Your task to perform on an android device: change notification settings in the gmail app Image 0: 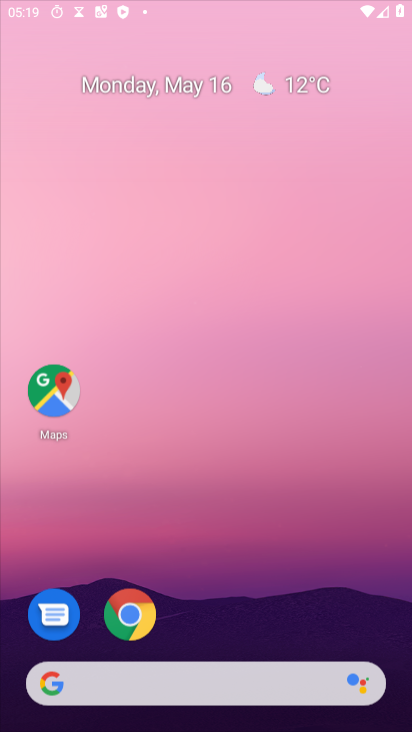
Step 0: click (125, 105)
Your task to perform on an android device: change notification settings in the gmail app Image 1: 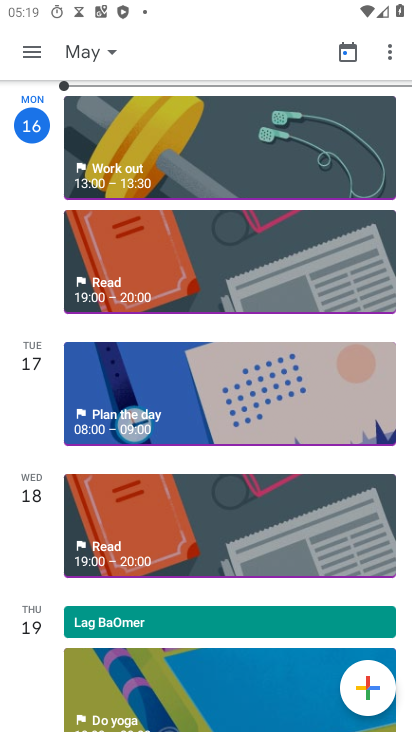
Step 1: press back button
Your task to perform on an android device: change notification settings in the gmail app Image 2: 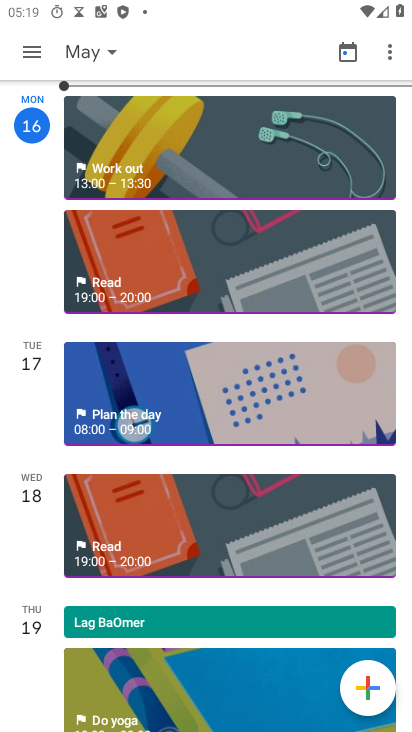
Step 2: press back button
Your task to perform on an android device: change notification settings in the gmail app Image 3: 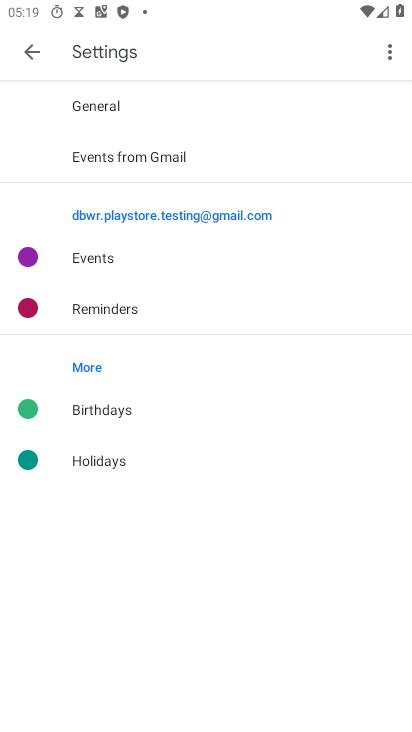
Step 3: press back button
Your task to perform on an android device: change notification settings in the gmail app Image 4: 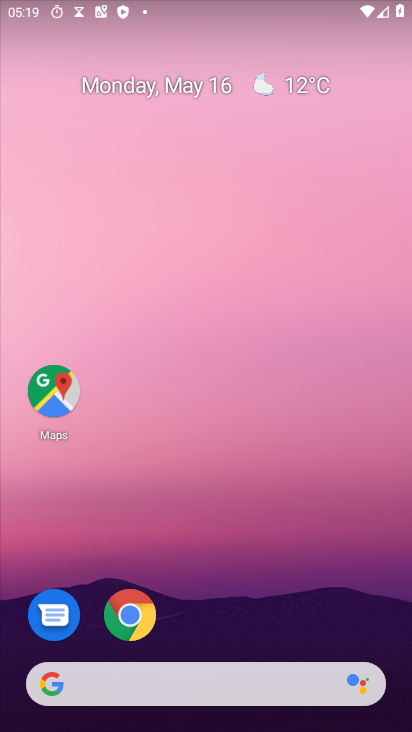
Step 4: press home button
Your task to perform on an android device: change notification settings in the gmail app Image 5: 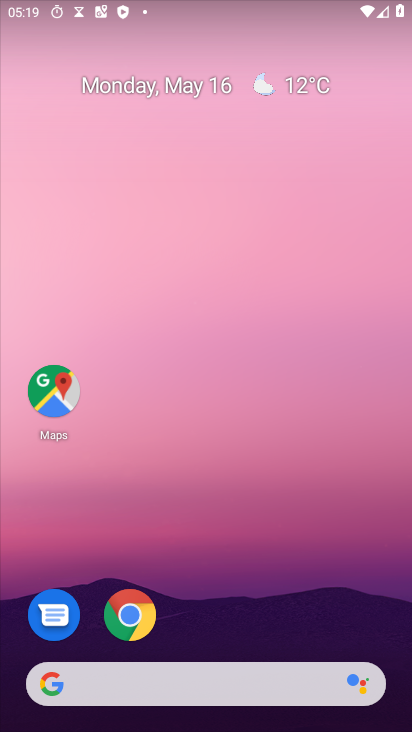
Step 5: drag from (300, 610) to (102, 116)
Your task to perform on an android device: change notification settings in the gmail app Image 6: 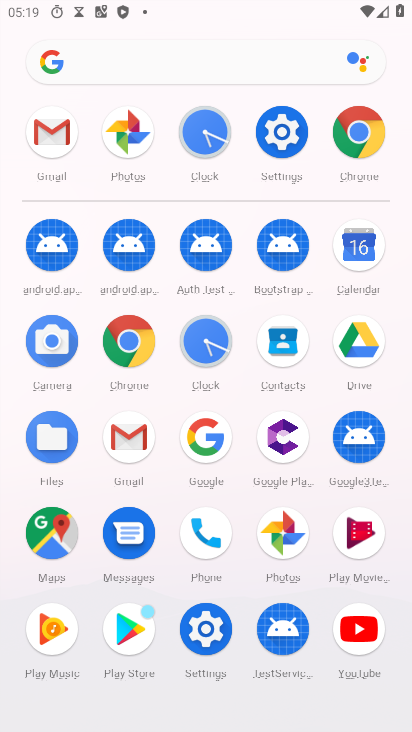
Step 6: click (115, 445)
Your task to perform on an android device: change notification settings in the gmail app Image 7: 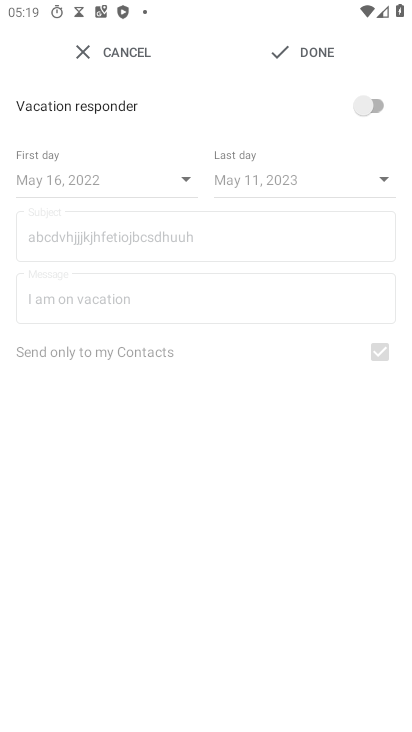
Step 7: press back button
Your task to perform on an android device: change notification settings in the gmail app Image 8: 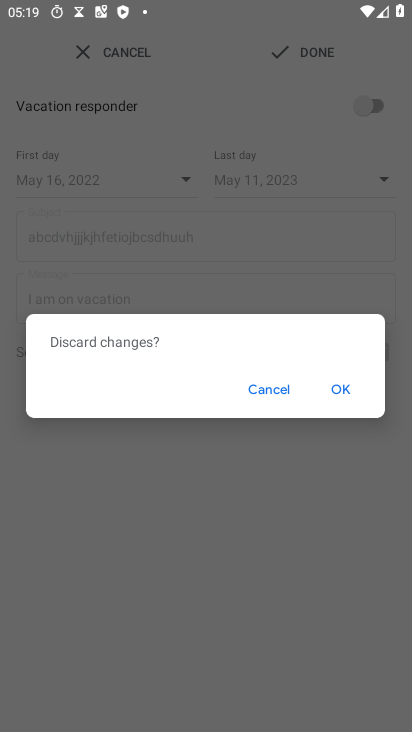
Step 8: click (260, 378)
Your task to perform on an android device: change notification settings in the gmail app Image 9: 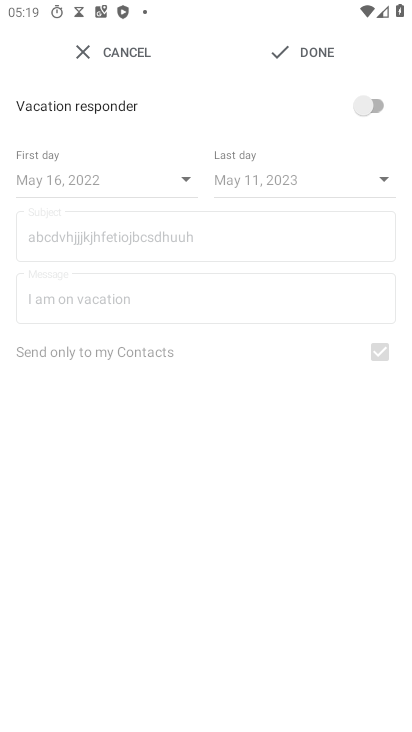
Step 9: click (264, 380)
Your task to perform on an android device: change notification settings in the gmail app Image 10: 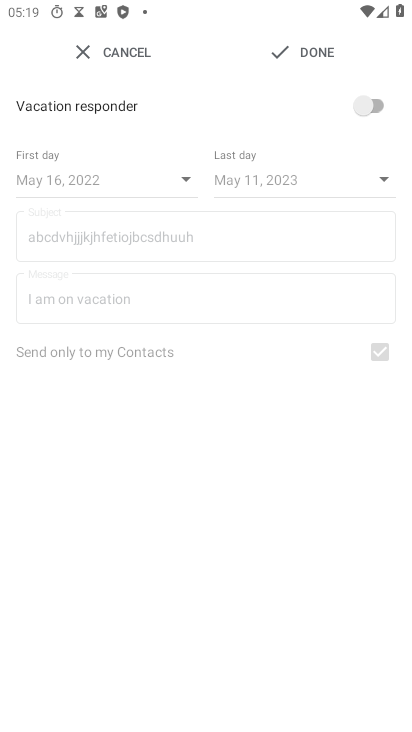
Step 10: click (86, 45)
Your task to perform on an android device: change notification settings in the gmail app Image 11: 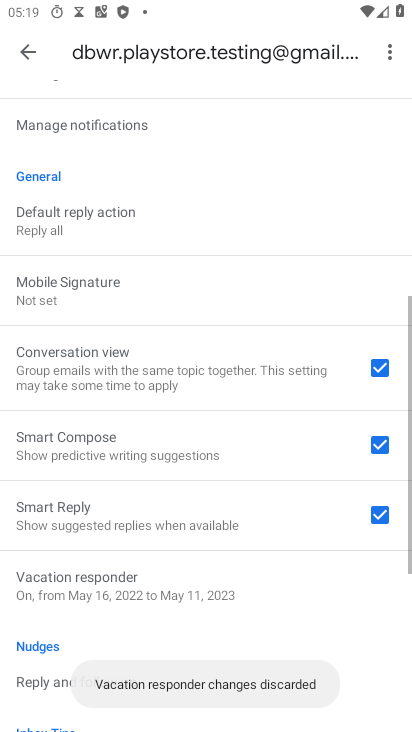
Step 11: press home button
Your task to perform on an android device: change notification settings in the gmail app Image 12: 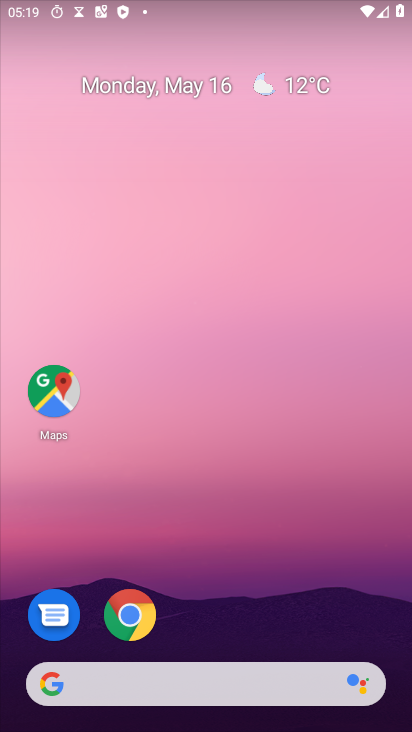
Step 12: drag from (240, 671) to (67, 199)
Your task to perform on an android device: change notification settings in the gmail app Image 13: 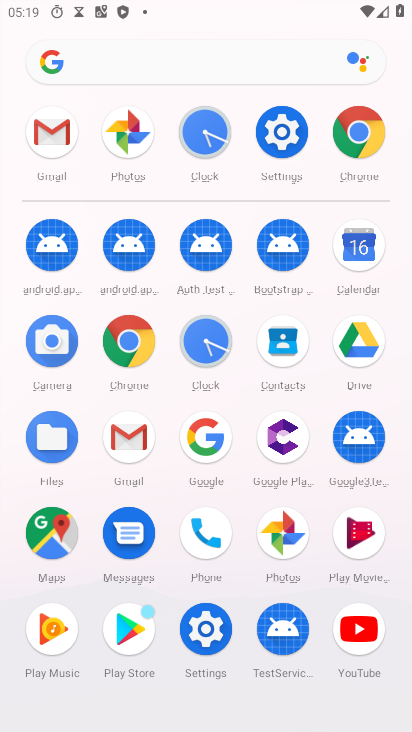
Step 13: drag from (269, 664) to (237, 171)
Your task to perform on an android device: change notification settings in the gmail app Image 14: 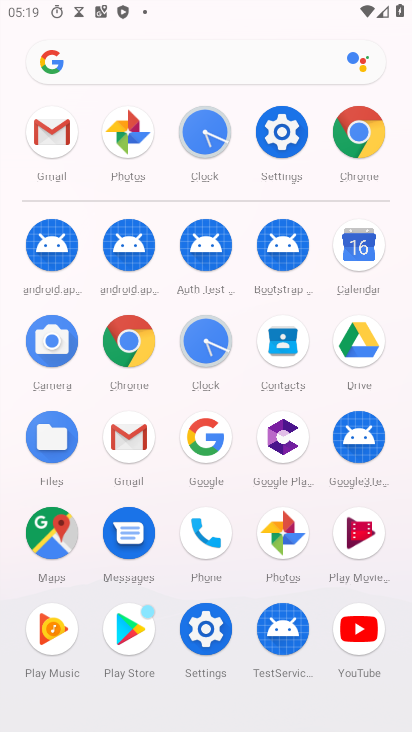
Step 14: click (269, 132)
Your task to perform on an android device: change notification settings in the gmail app Image 15: 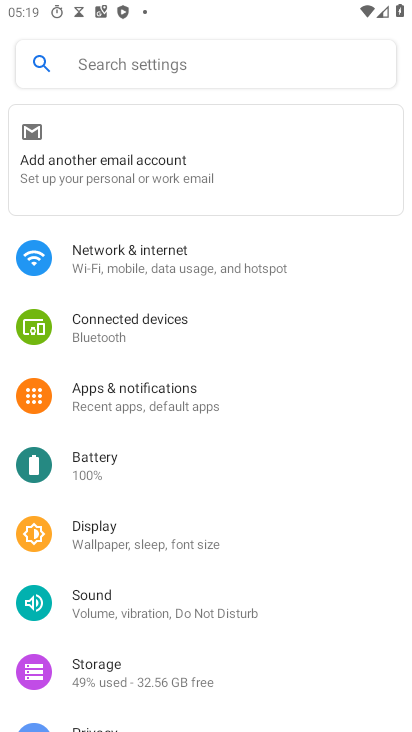
Step 15: drag from (166, 550) to (88, 160)
Your task to perform on an android device: change notification settings in the gmail app Image 16: 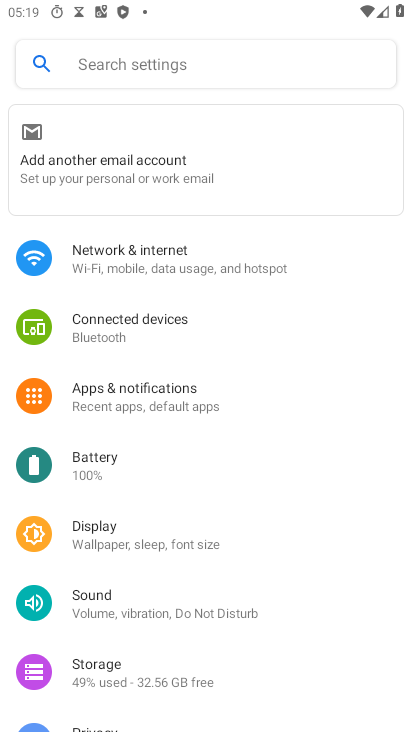
Step 16: drag from (147, 427) to (115, 98)
Your task to perform on an android device: change notification settings in the gmail app Image 17: 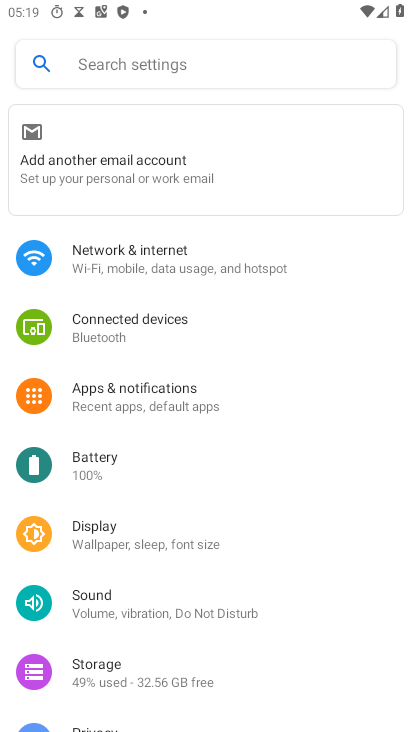
Step 17: drag from (181, 476) to (160, 27)
Your task to perform on an android device: change notification settings in the gmail app Image 18: 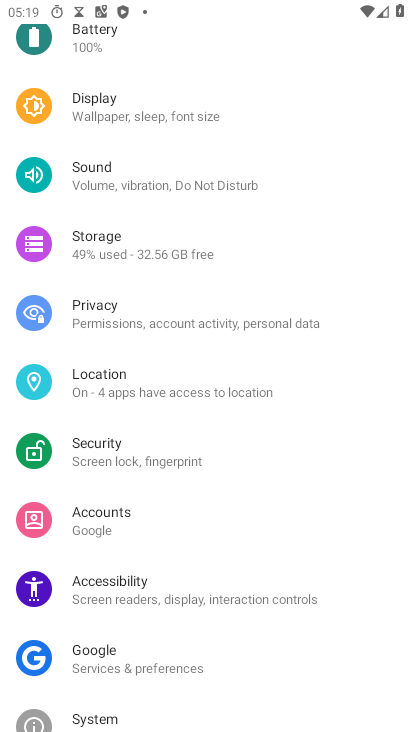
Step 18: drag from (209, 367) to (151, 42)
Your task to perform on an android device: change notification settings in the gmail app Image 19: 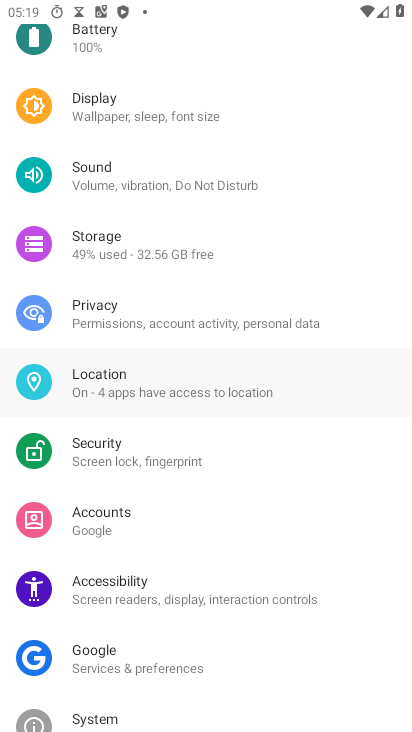
Step 19: drag from (244, 410) to (168, 19)
Your task to perform on an android device: change notification settings in the gmail app Image 20: 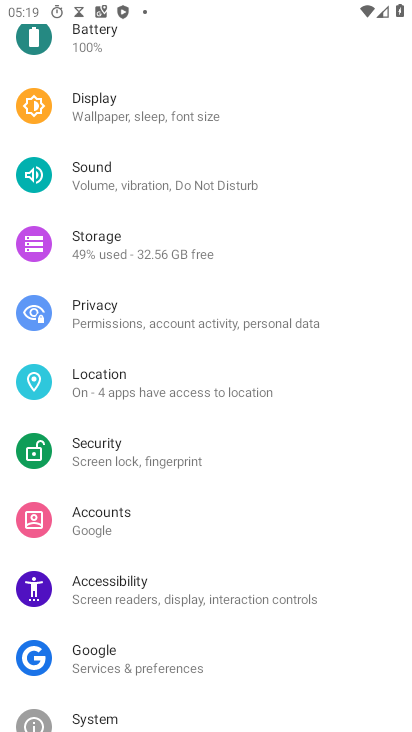
Step 20: drag from (137, 645) to (75, 96)
Your task to perform on an android device: change notification settings in the gmail app Image 21: 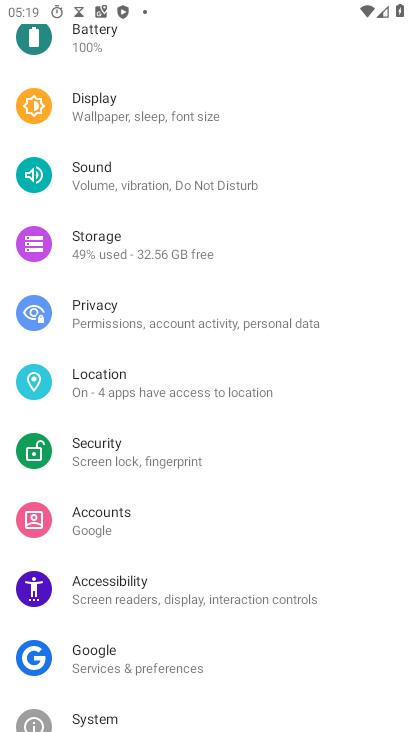
Step 21: drag from (138, 625) to (84, 247)
Your task to perform on an android device: change notification settings in the gmail app Image 22: 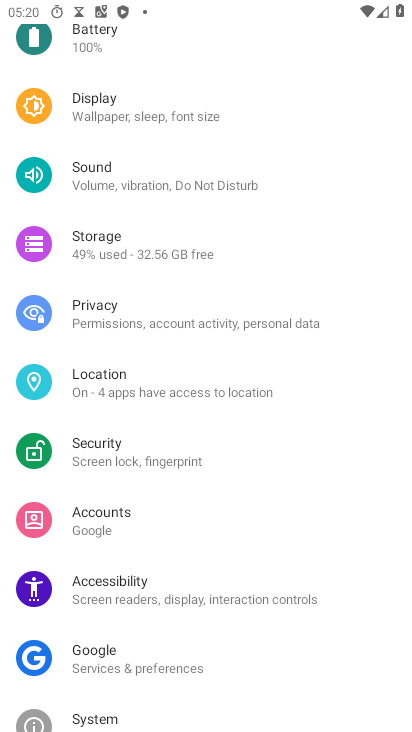
Step 22: press home button
Your task to perform on an android device: change notification settings in the gmail app Image 23: 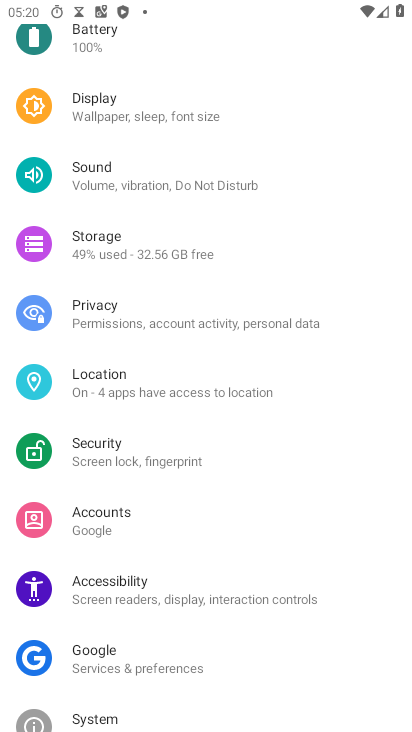
Step 23: press home button
Your task to perform on an android device: change notification settings in the gmail app Image 24: 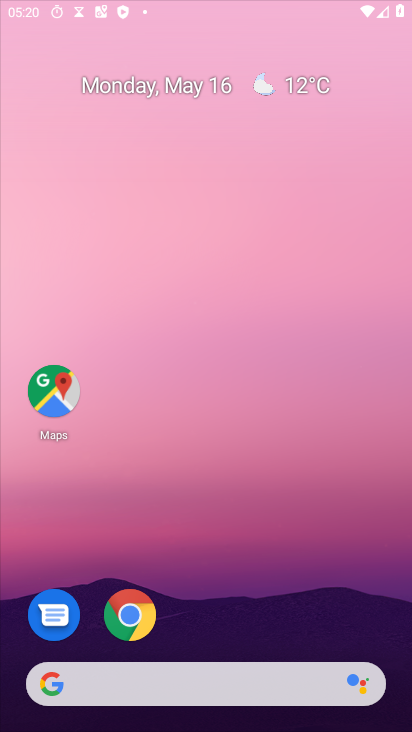
Step 24: press home button
Your task to perform on an android device: change notification settings in the gmail app Image 25: 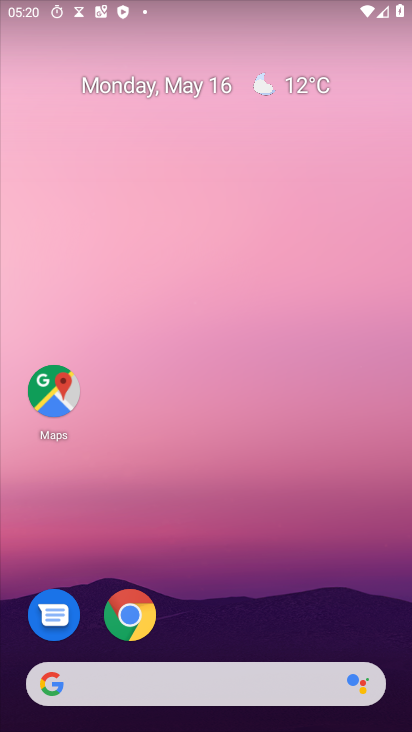
Step 25: drag from (175, 590) to (97, 74)
Your task to perform on an android device: change notification settings in the gmail app Image 26: 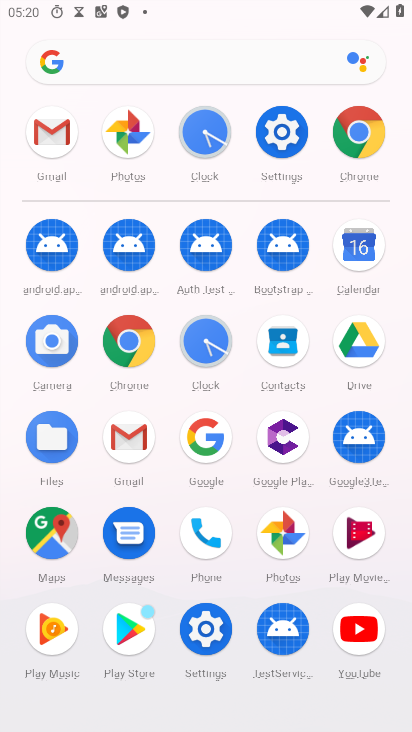
Step 26: click (39, 130)
Your task to perform on an android device: change notification settings in the gmail app Image 27: 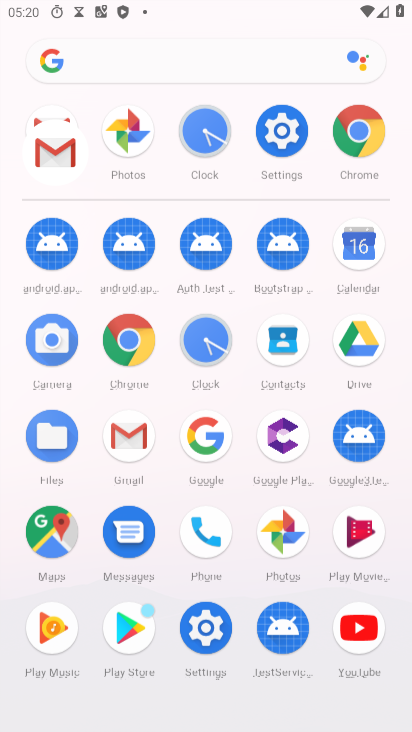
Step 27: click (39, 130)
Your task to perform on an android device: change notification settings in the gmail app Image 28: 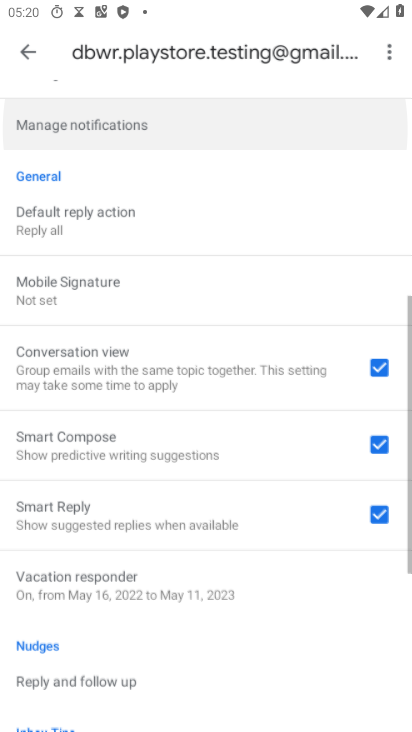
Step 28: click (39, 130)
Your task to perform on an android device: change notification settings in the gmail app Image 29: 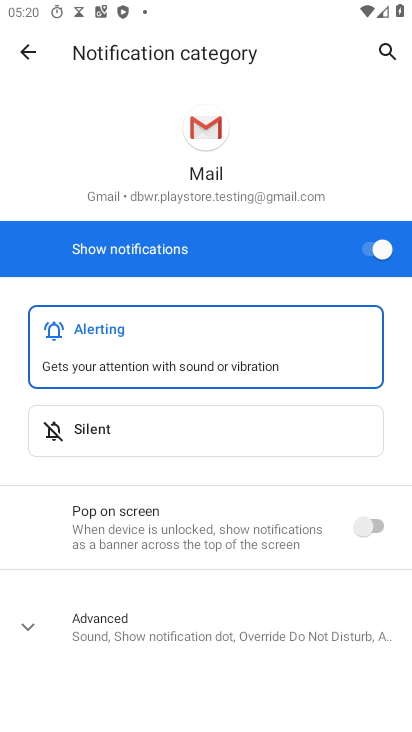
Step 29: click (23, 52)
Your task to perform on an android device: change notification settings in the gmail app Image 30: 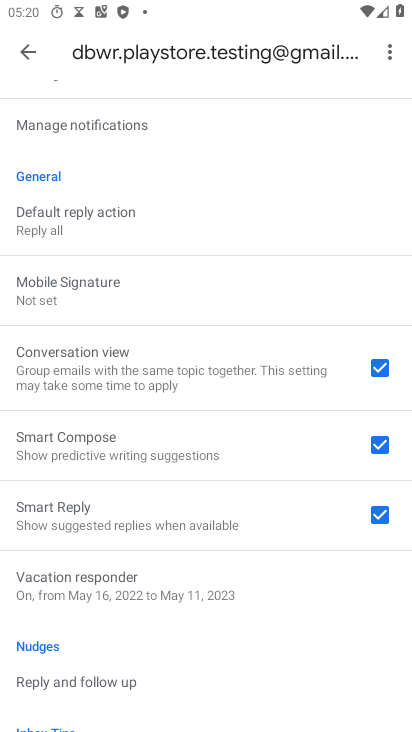
Step 30: drag from (45, 160) to (117, 577)
Your task to perform on an android device: change notification settings in the gmail app Image 31: 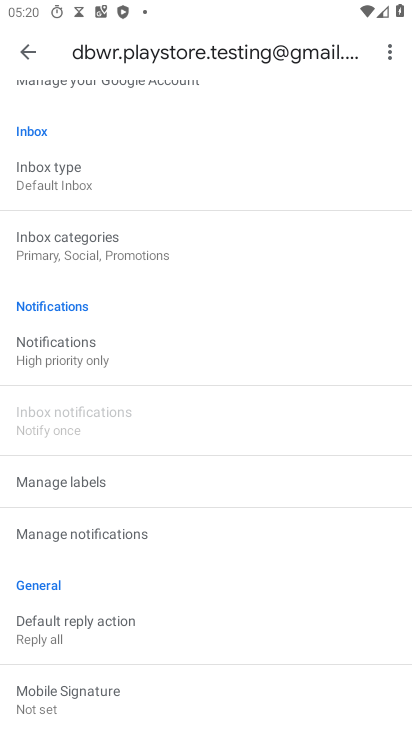
Step 31: click (47, 357)
Your task to perform on an android device: change notification settings in the gmail app Image 32: 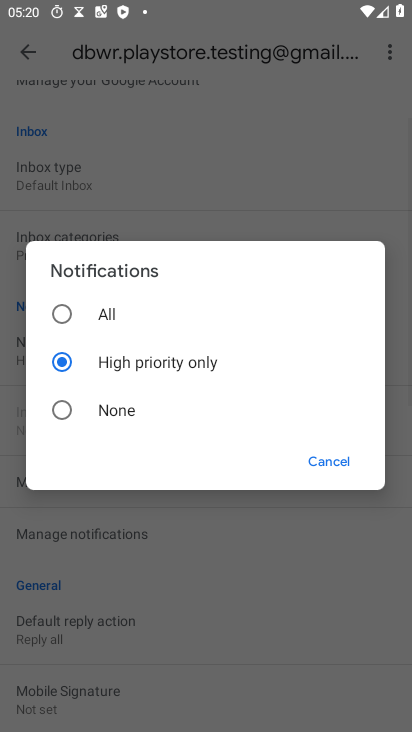
Step 32: click (60, 299)
Your task to perform on an android device: change notification settings in the gmail app Image 33: 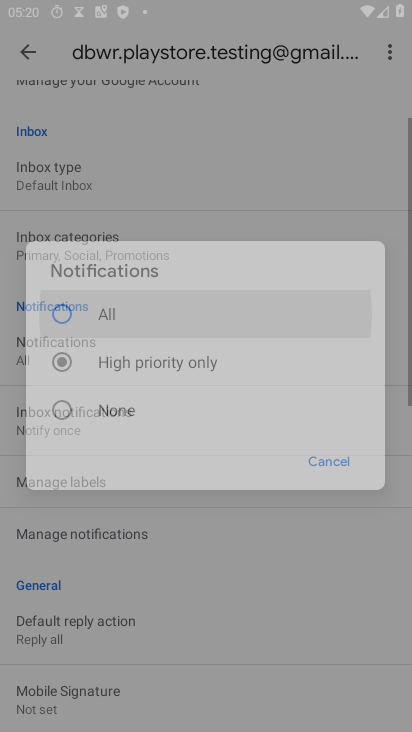
Step 33: click (65, 311)
Your task to perform on an android device: change notification settings in the gmail app Image 34: 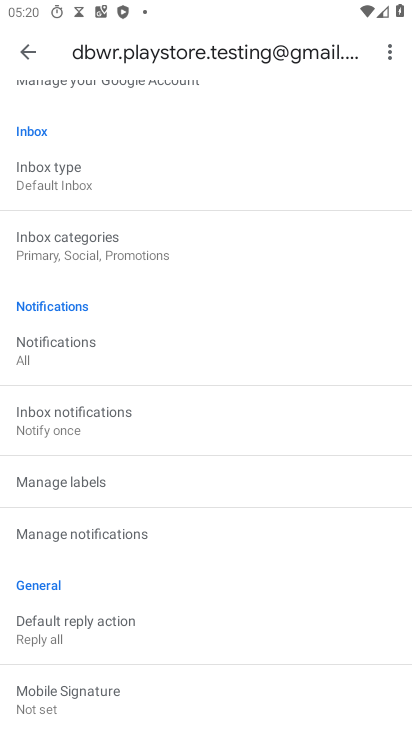
Step 34: task complete